Your task to perform on an android device: set the timer Image 0: 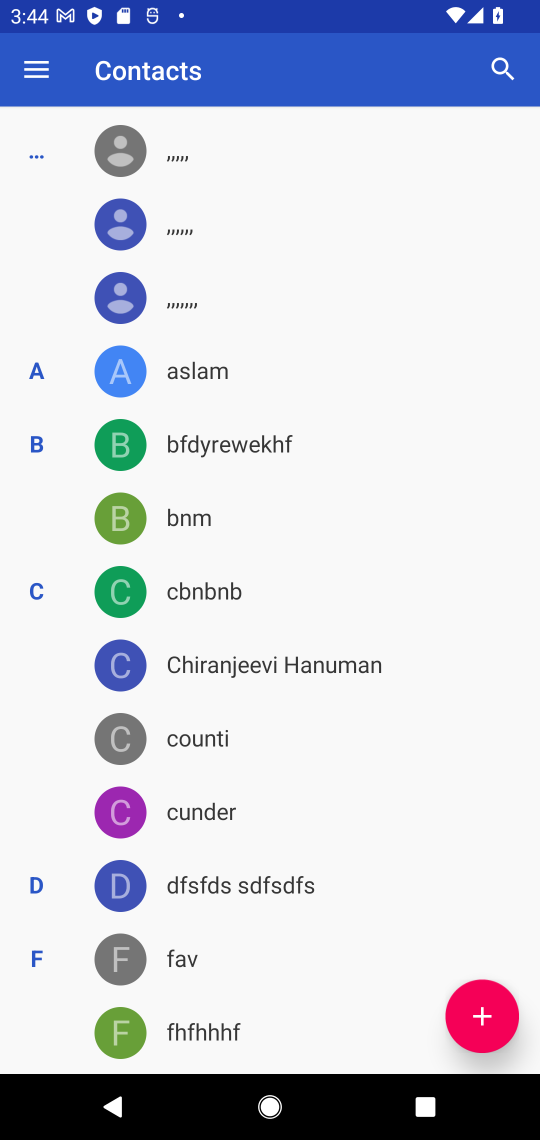
Step 0: press home button
Your task to perform on an android device: set the timer Image 1: 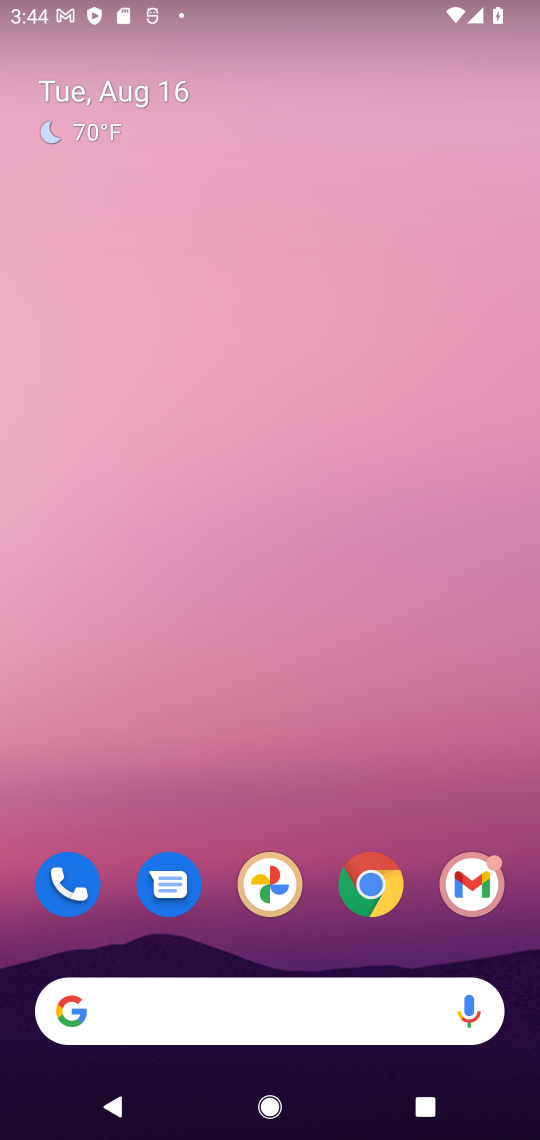
Step 1: drag from (234, 735) to (236, 156)
Your task to perform on an android device: set the timer Image 2: 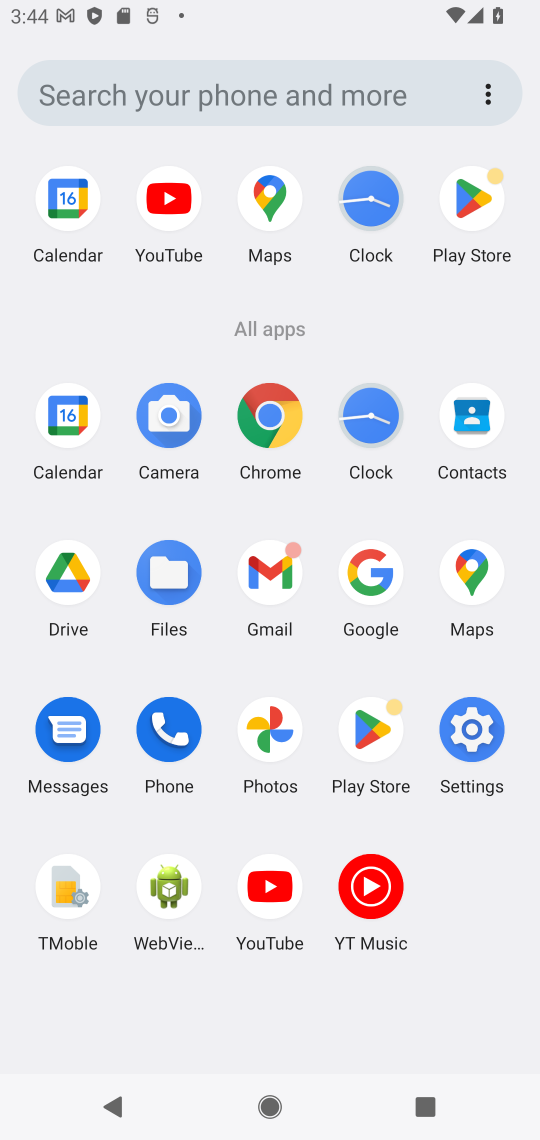
Step 2: click (355, 211)
Your task to perform on an android device: set the timer Image 3: 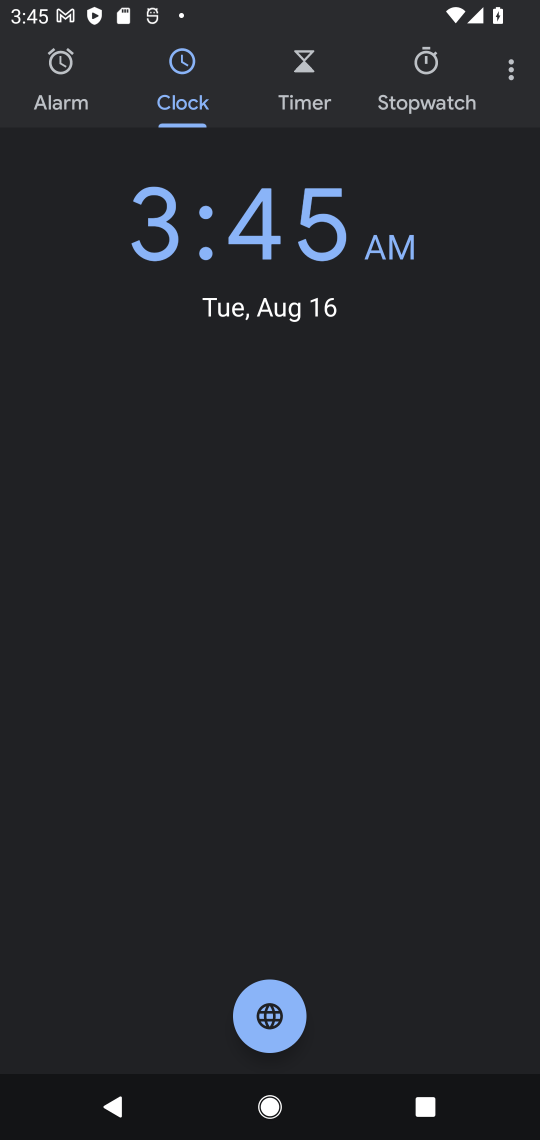
Step 3: click (320, 89)
Your task to perform on an android device: set the timer Image 4: 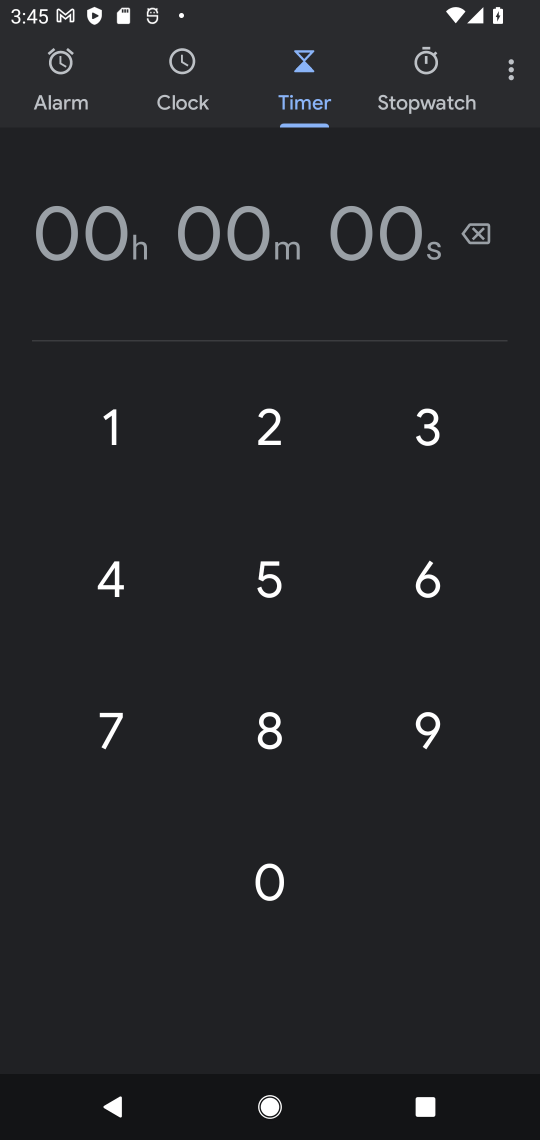
Step 4: type "11"
Your task to perform on an android device: set the timer Image 5: 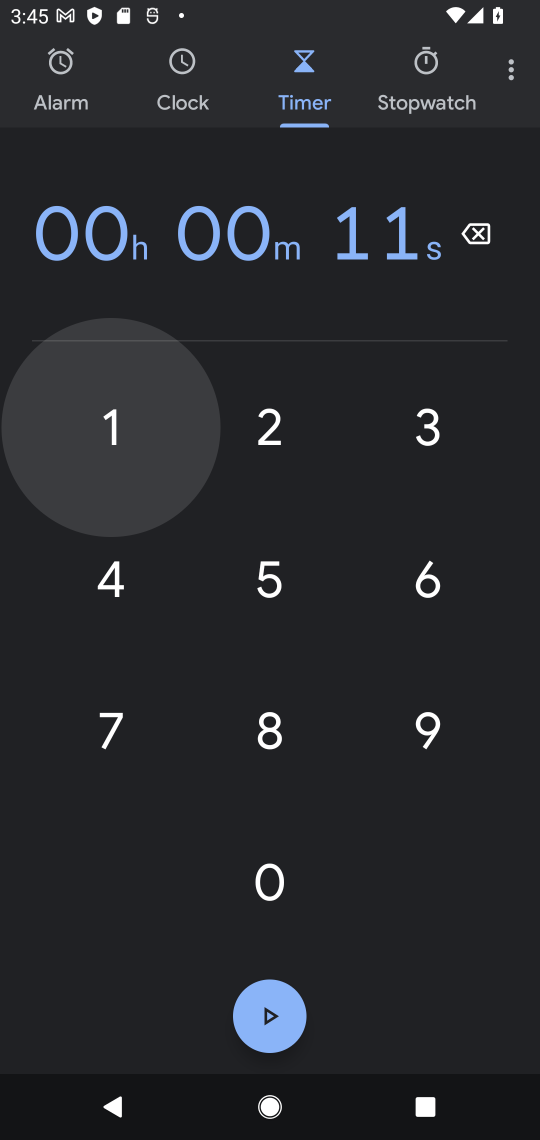
Step 5: click (260, 1024)
Your task to perform on an android device: set the timer Image 6: 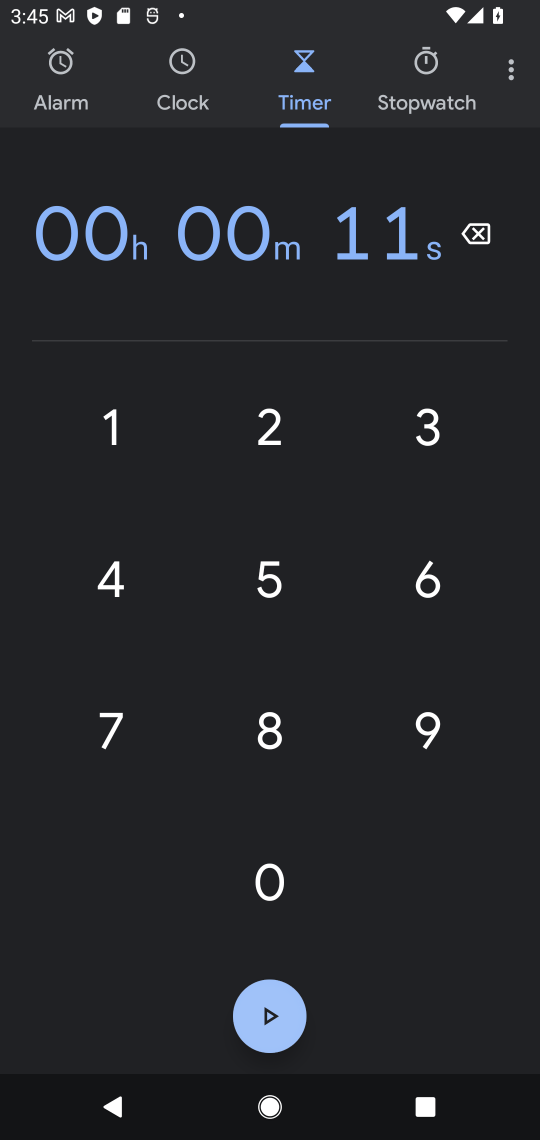
Step 6: task complete